Your task to perform on an android device: Do I have any events this weekend? Image 0: 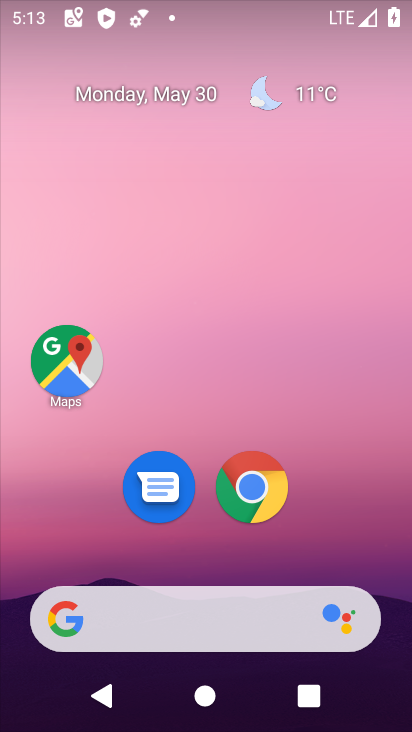
Step 0: drag from (401, 623) to (328, 93)
Your task to perform on an android device: Do I have any events this weekend? Image 1: 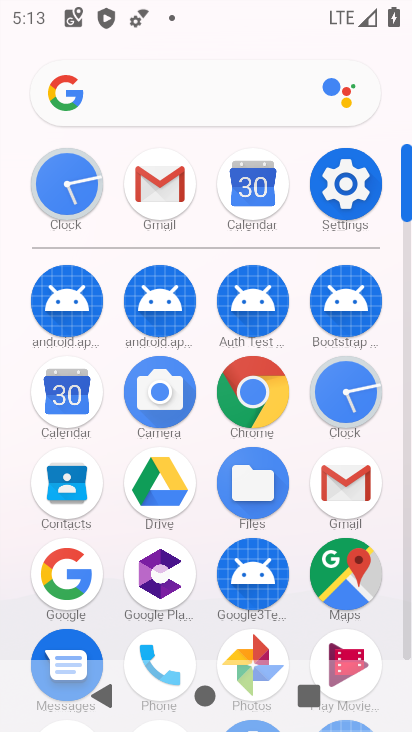
Step 1: click (409, 637)
Your task to perform on an android device: Do I have any events this weekend? Image 2: 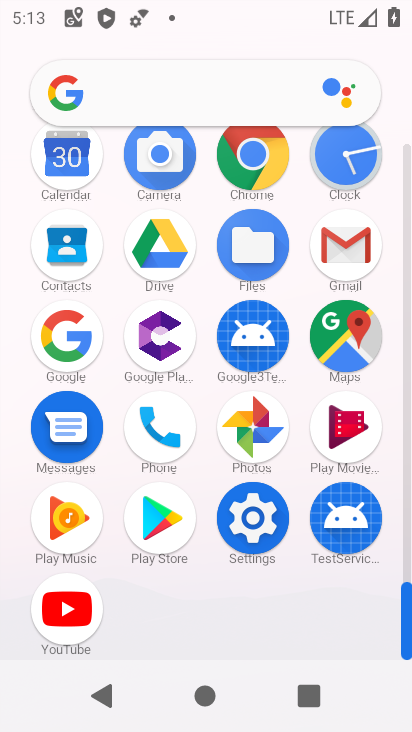
Step 2: click (67, 153)
Your task to perform on an android device: Do I have any events this weekend? Image 3: 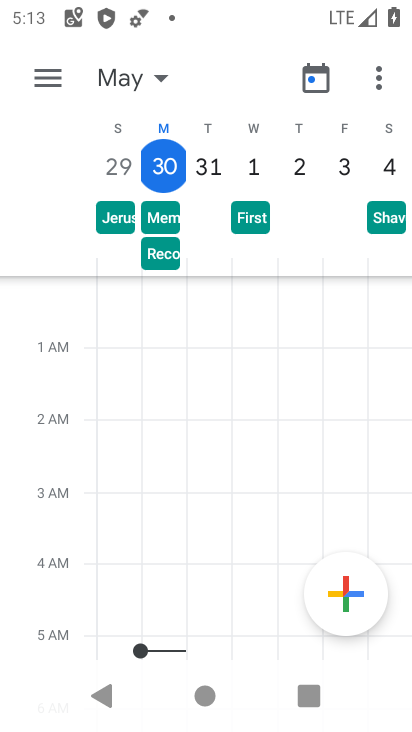
Step 3: task complete